Your task to perform on an android device: check google app version Image 0: 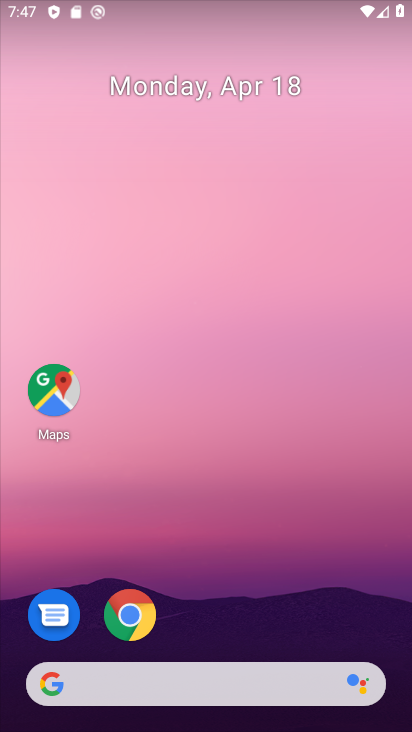
Step 0: drag from (326, 623) to (360, 87)
Your task to perform on an android device: check google app version Image 1: 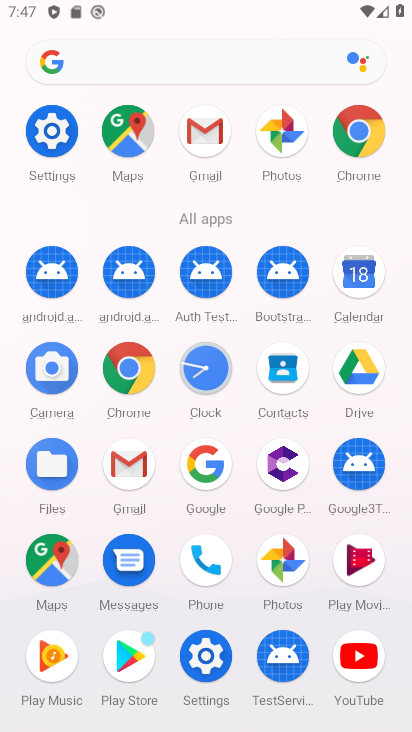
Step 1: click (201, 473)
Your task to perform on an android device: check google app version Image 2: 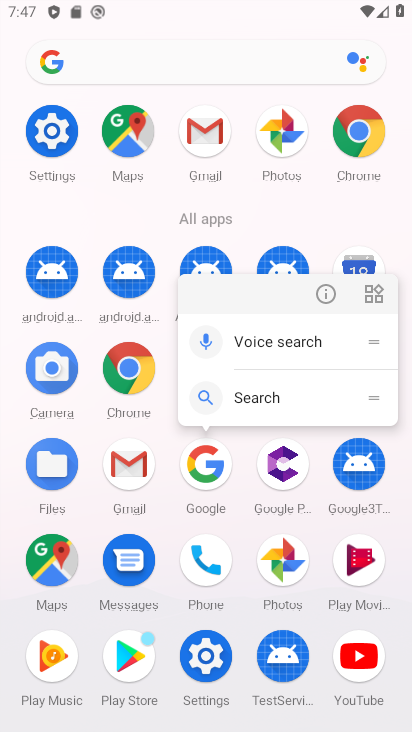
Step 2: click (201, 470)
Your task to perform on an android device: check google app version Image 3: 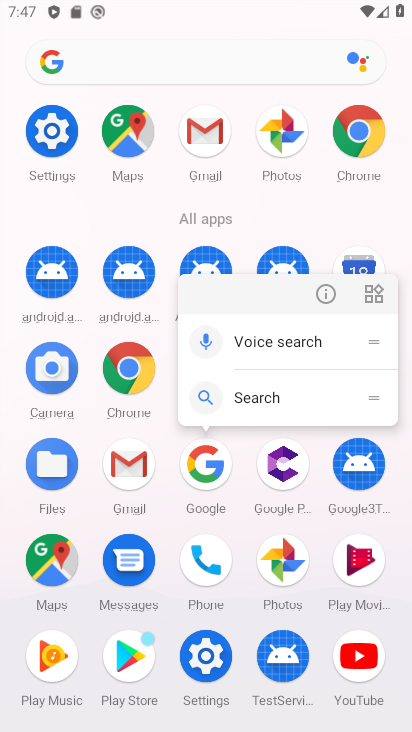
Step 3: click (205, 464)
Your task to perform on an android device: check google app version Image 4: 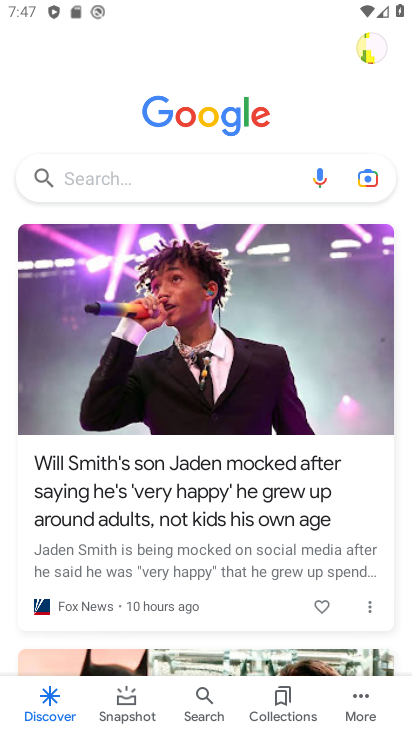
Step 4: click (361, 692)
Your task to perform on an android device: check google app version Image 5: 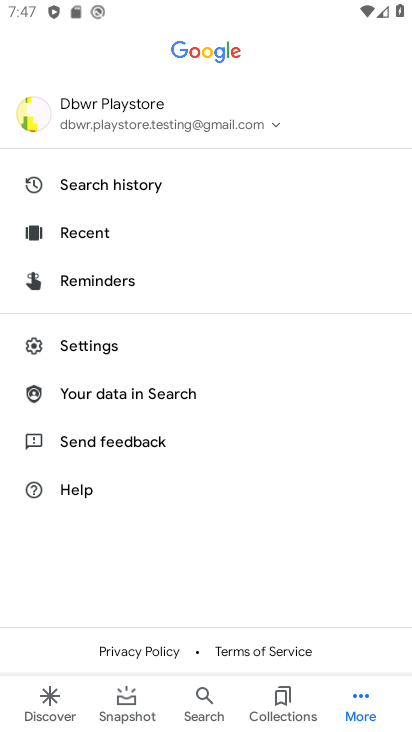
Step 5: click (116, 340)
Your task to perform on an android device: check google app version Image 6: 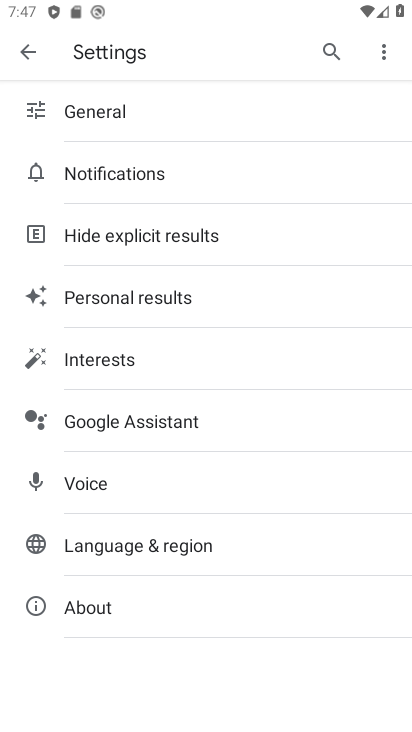
Step 6: click (83, 599)
Your task to perform on an android device: check google app version Image 7: 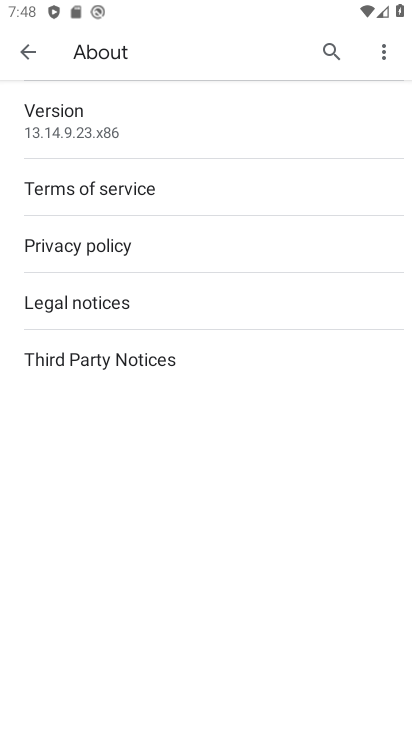
Step 7: task complete